Your task to perform on an android device: open the mobile data screen to see how much data has been used Image 0: 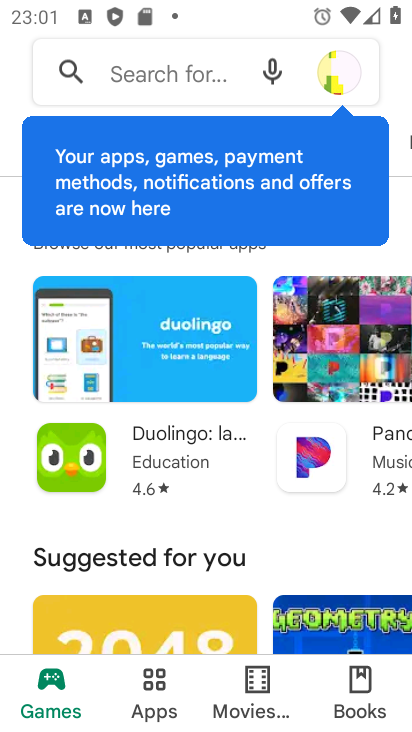
Step 0: press home button
Your task to perform on an android device: open the mobile data screen to see how much data has been used Image 1: 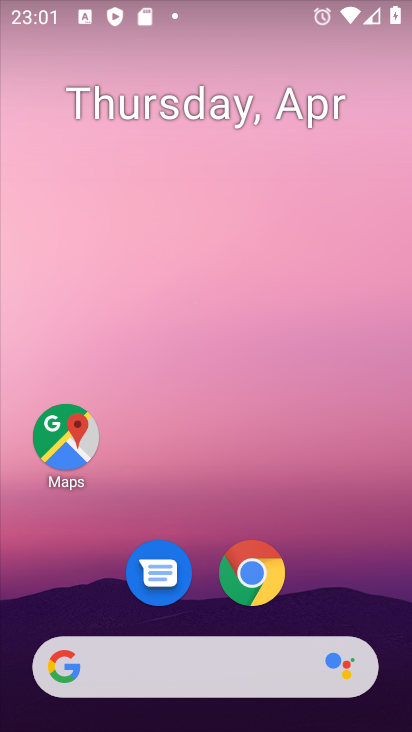
Step 1: drag from (346, 592) to (275, 142)
Your task to perform on an android device: open the mobile data screen to see how much data has been used Image 2: 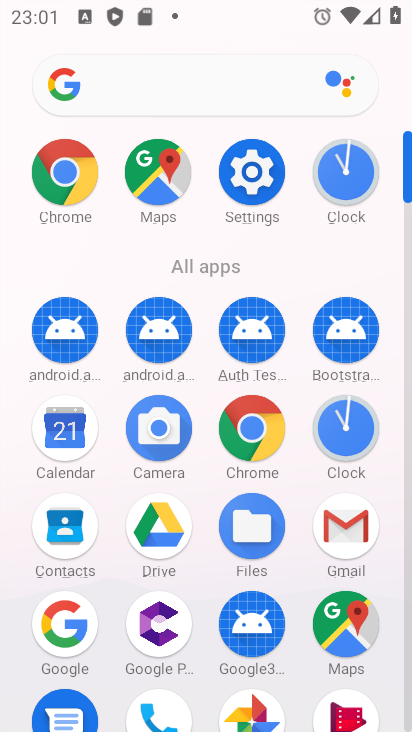
Step 2: click (248, 186)
Your task to perform on an android device: open the mobile data screen to see how much data has been used Image 3: 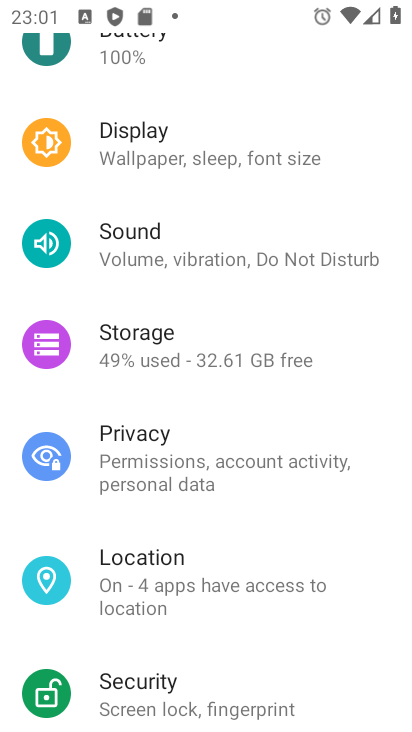
Step 3: drag from (188, 116) to (241, 487)
Your task to perform on an android device: open the mobile data screen to see how much data has been used Image 4: 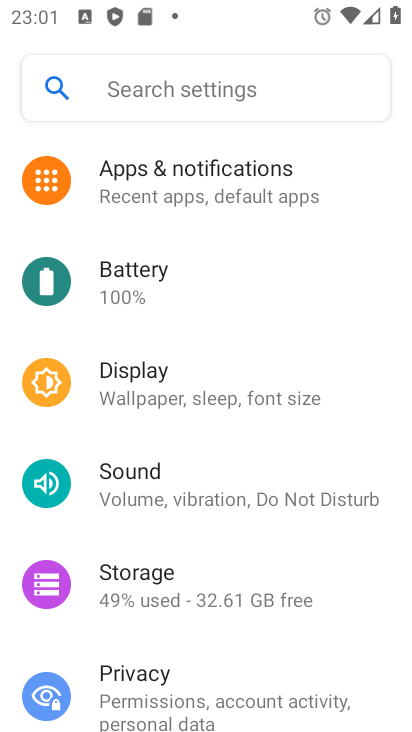
Step 4: drag from (238, 275) to (235, 556)
Your task to perform on an android device: open the mobile data screen to see how much data has been used Image 5: 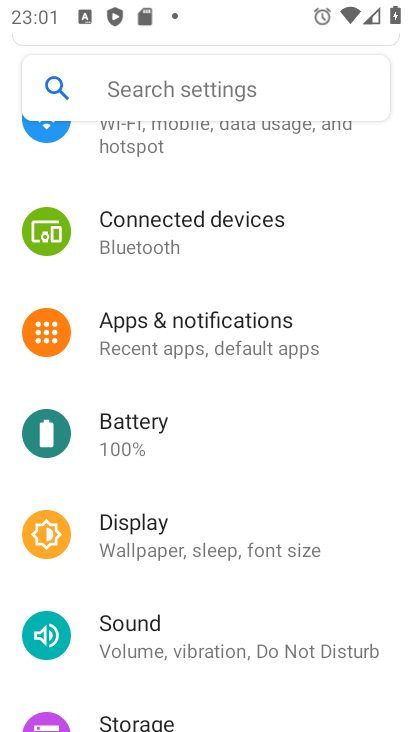
Step 5: drag from (224, 167) to (227, 591)
Your task to perform on an android device: open the mobile data screen to see how much data has been used Image 6: 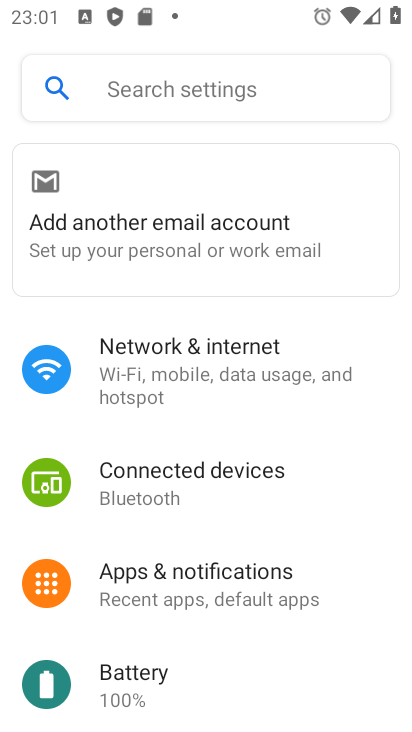
Step 6: click (256, 365)
Your task to perform on an android device: open the mobile data screen to see how much data has been used Image 7: 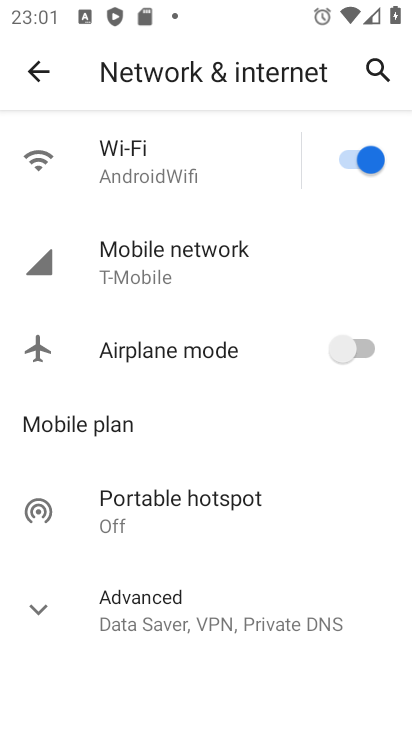
Step 7: click (201, 262)
Your task to perform on an android device: open the mobile data screen to see how much data has been used Image 8: 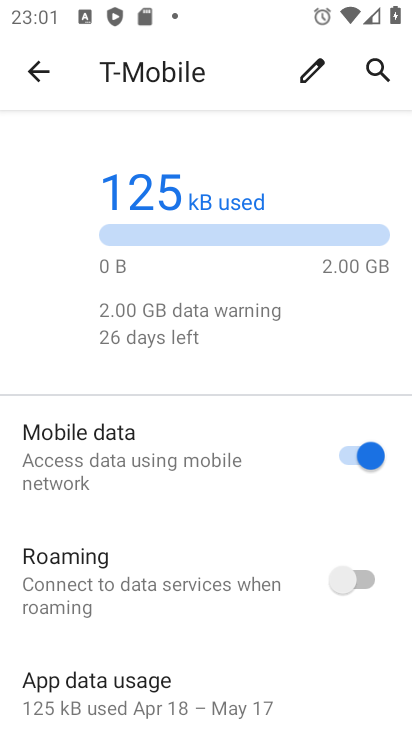
Step 8: drag from (198, 606) to (179, 301)
Your task to perform on an android device: open the mobile data screen to see how much data has been used Image 9: 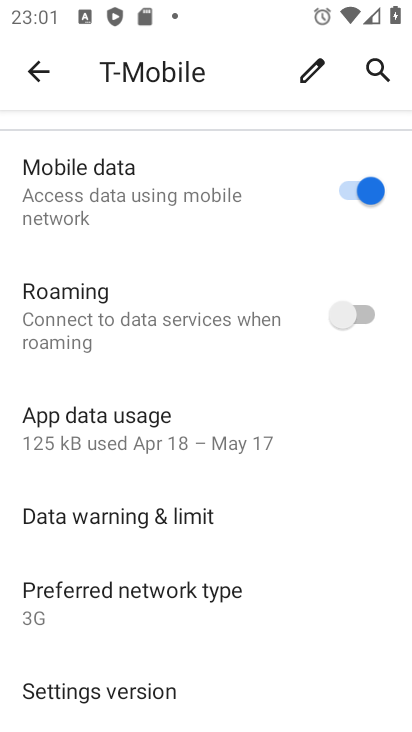
Step 9: click (186, 430)
Your task to perform on an android device: open the mobile data screen to see how much data has been used Image 10: 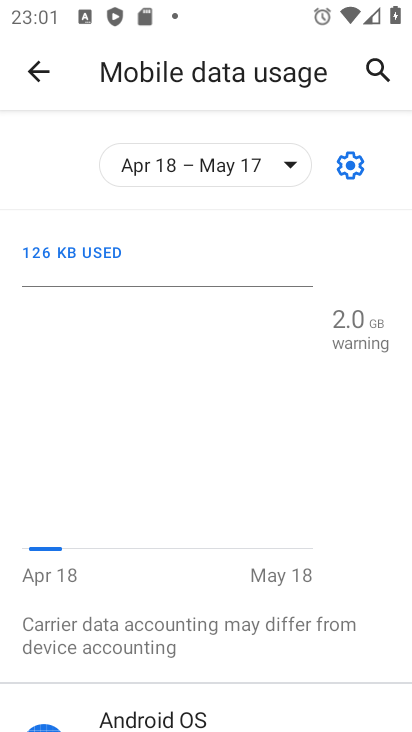
Step 10: task complete